Your task to perform on an android device: Empty the shopping cart on newegg. Image 0: 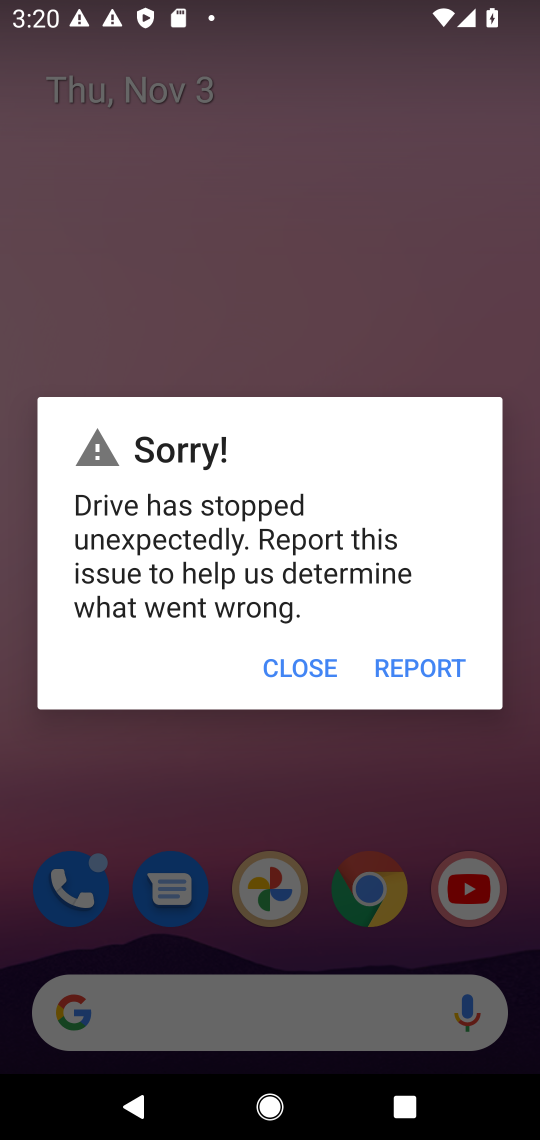
Step 0: click (277, 677)
Your task to perform on an android device: Empty the shopping cart on newegg. Image 1: 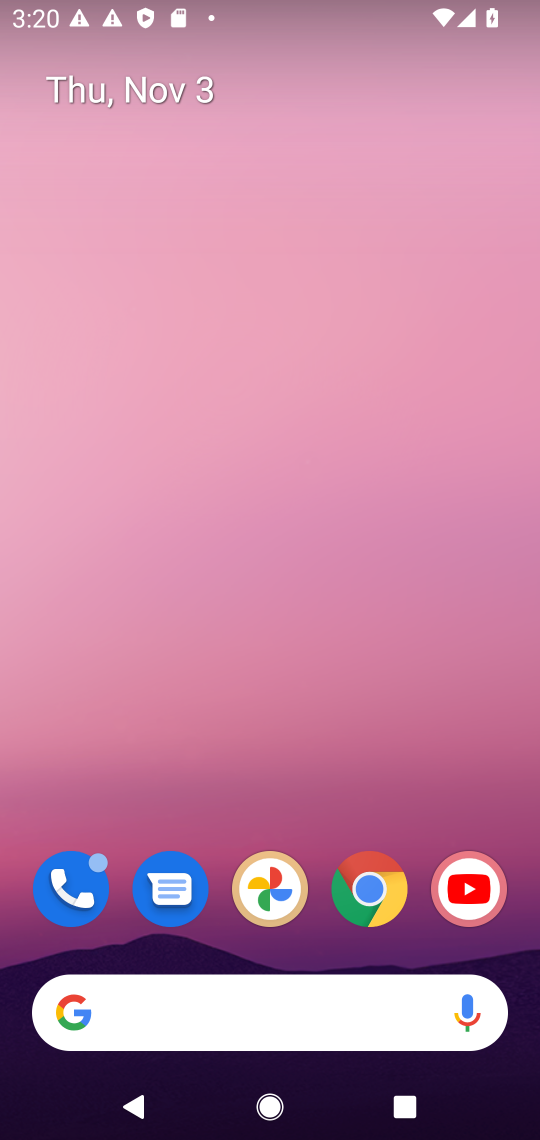
Step 1: click (363, 887)
Your task to perform on an android device: Empty the shopping cart on newegg. Image 2: 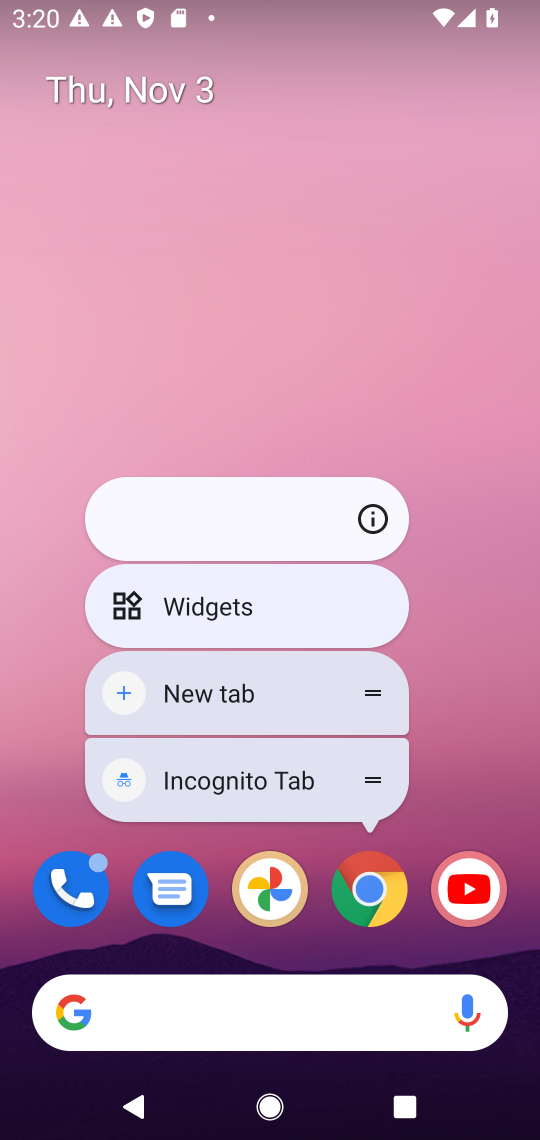
Step 2: click (370, 897)
Your task to perform on an android device: Empty the shopping cart on newegg. Image 3: 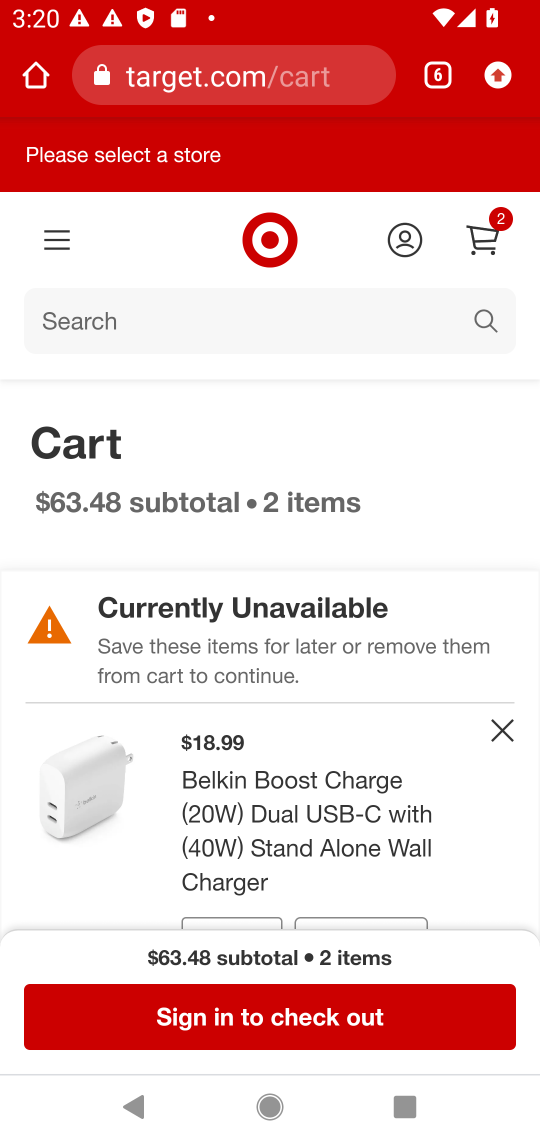
Step 3: click (436, 83)
Your task to perform on an android device: Empty the shopping cart on newegg. Image 4: 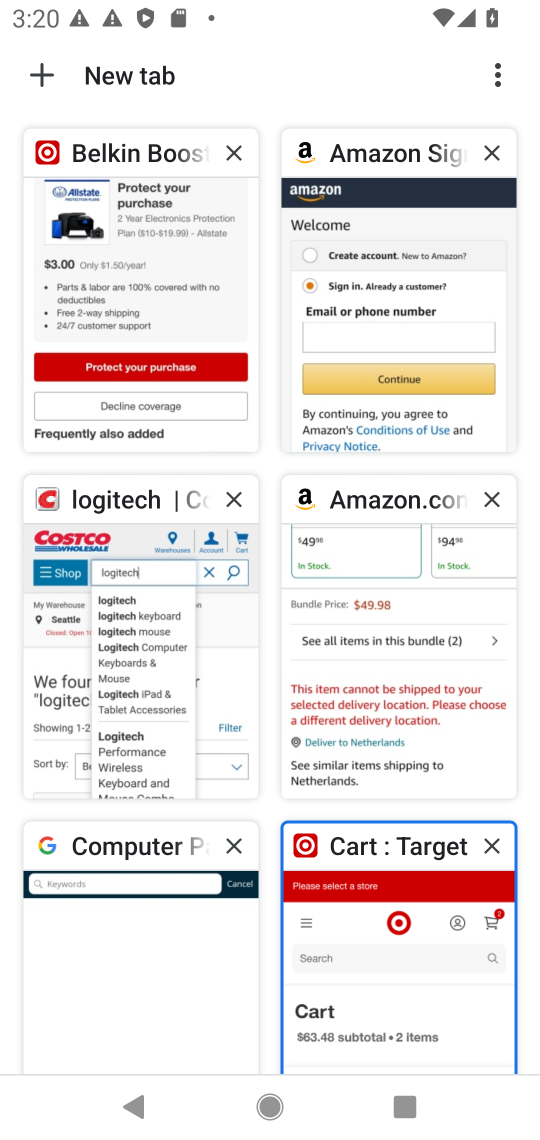
Step 4: click (33, 76)
Your task to perform on an android device: Empty the shopping cart on newegg. Image 5: 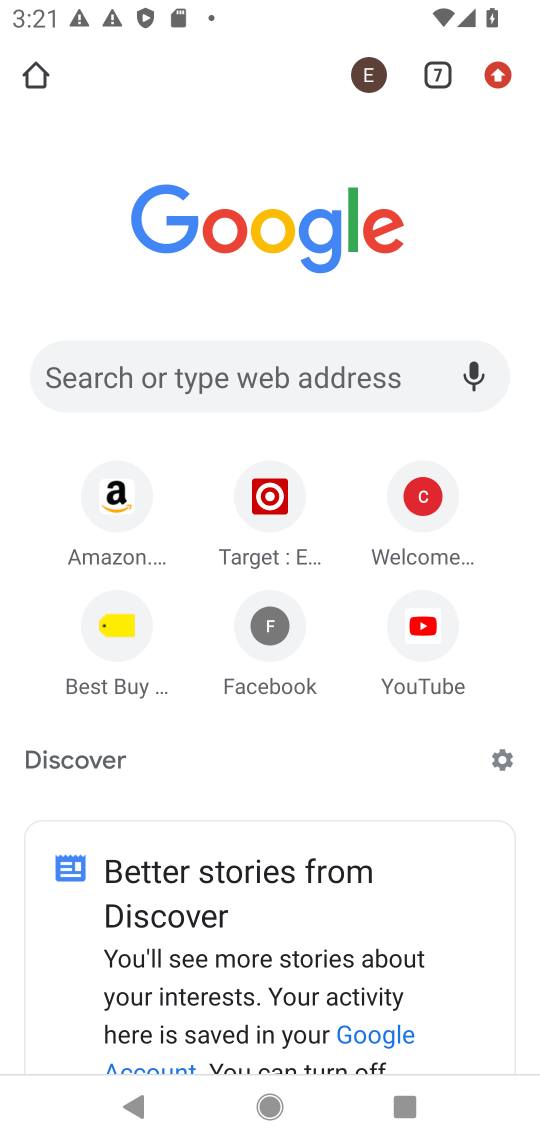
Step 5: click (215, 367)
Your task to perform on an android device: Empty the shopping cart on newegg. Image 6: 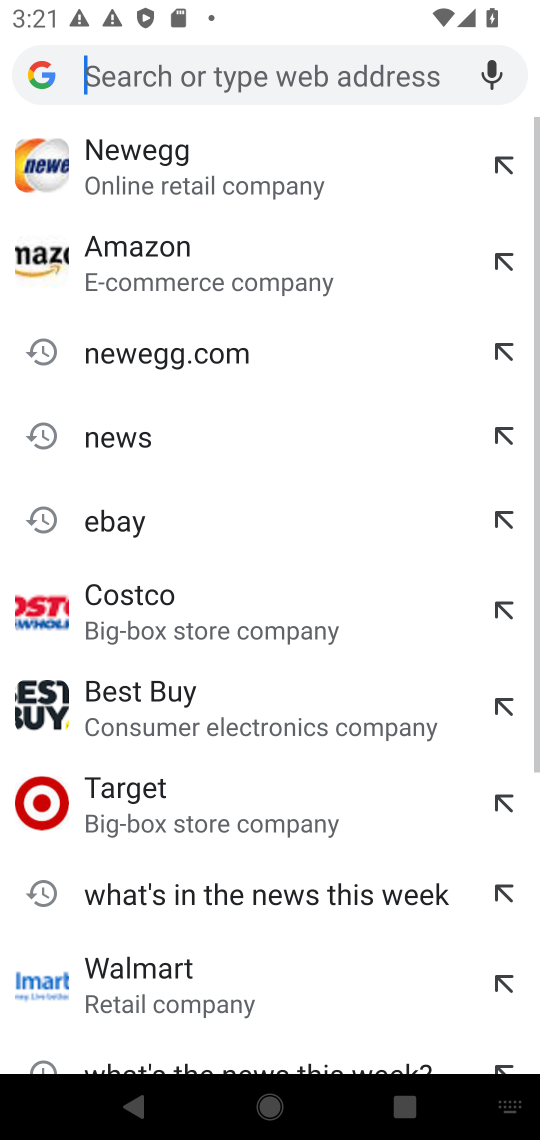
Step 6: click (226, 358)
Your task to perform on an android device: Empty the shopping cart on newegg. Image 7: 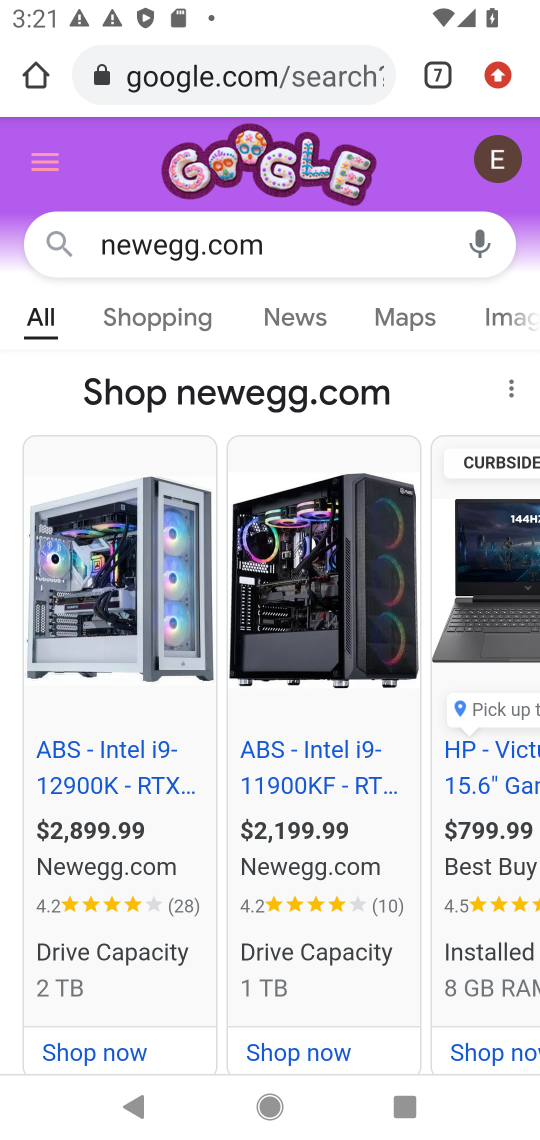
Step 7: drag from (244, 853) to (349, 527)
Your task to perform on an android device: Empty the shopping cart on newegg. Image 8: 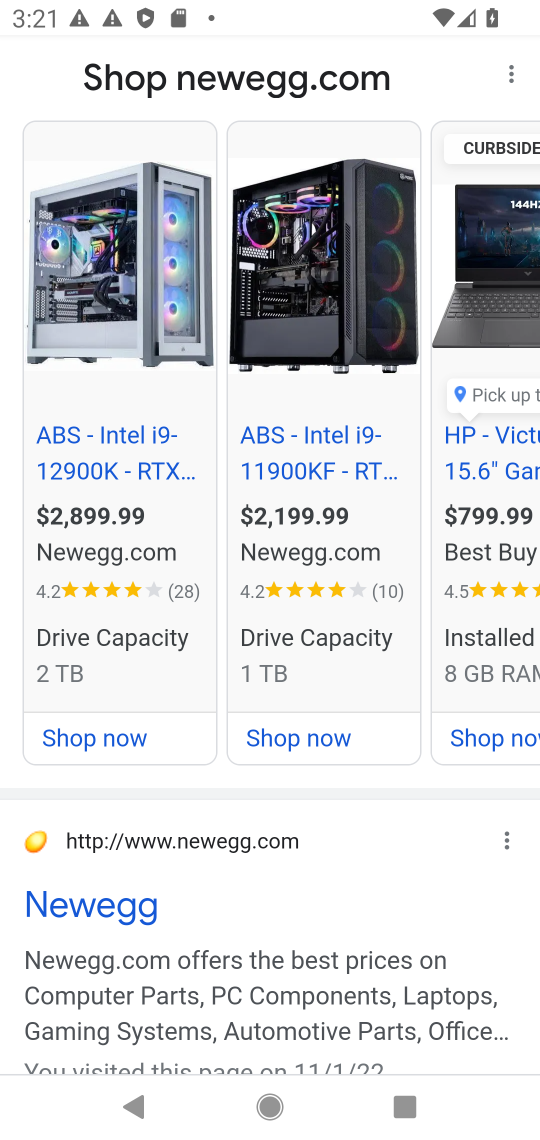
Step 8: click (125, 895)
Your task to perform on an android device: Empty the shopping cart on newegg. Image 9: 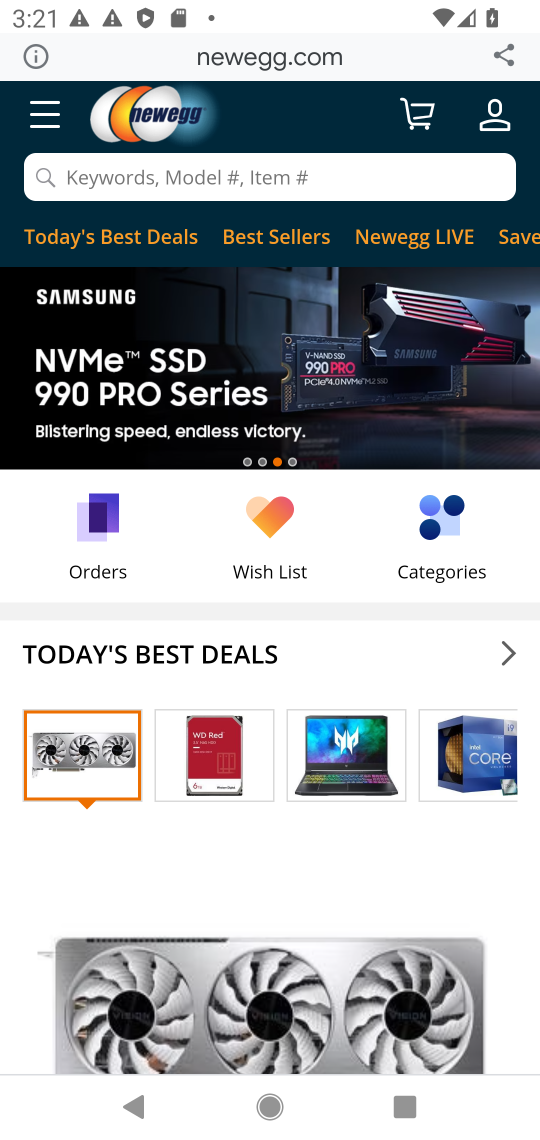
Step 9: drag from (372, 977) to (471, 250)
Your task to perform on an android device: Empty the shopping cart on newegg. Image 10: 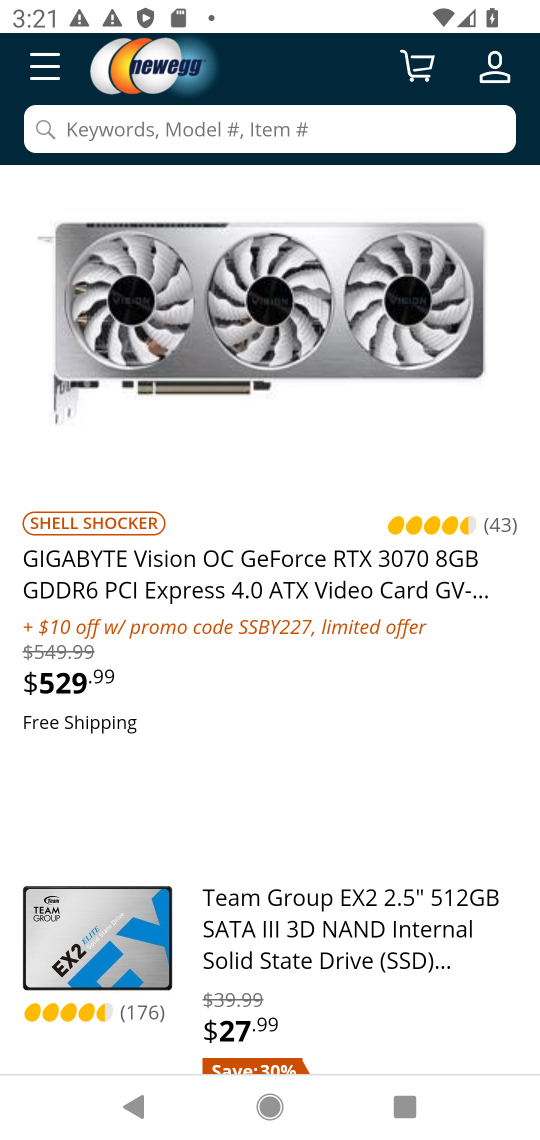
Step 10: drag from (394, 940) to (400, 1050)
Your task to perform on an android device: Empty the shopping cart on newegg. Image 11: 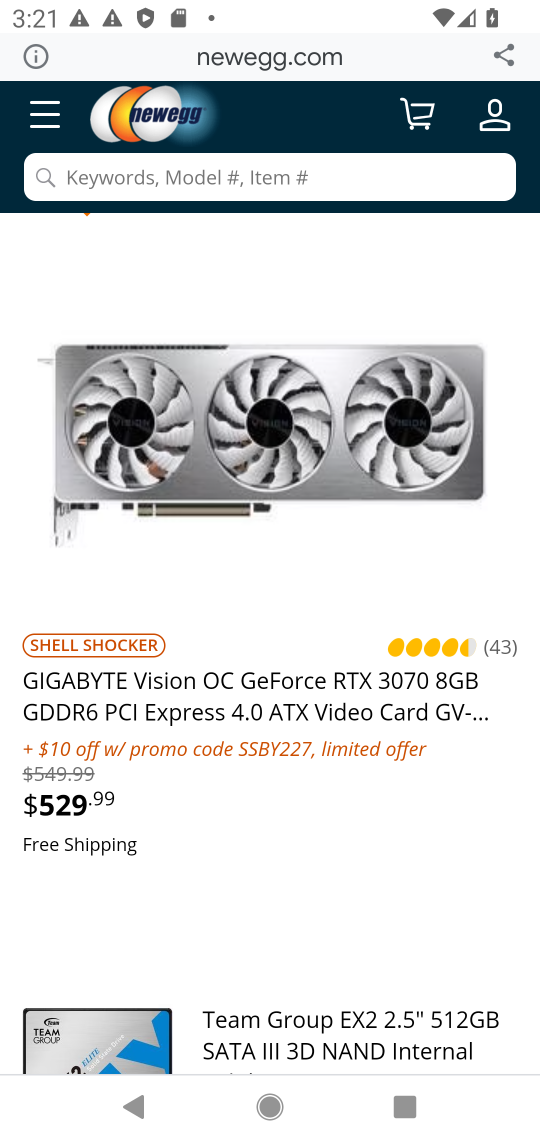
Step 11: click (425, 114)
Your task to perform on an android device: Empty the shopping cart on newegg. Image 12: 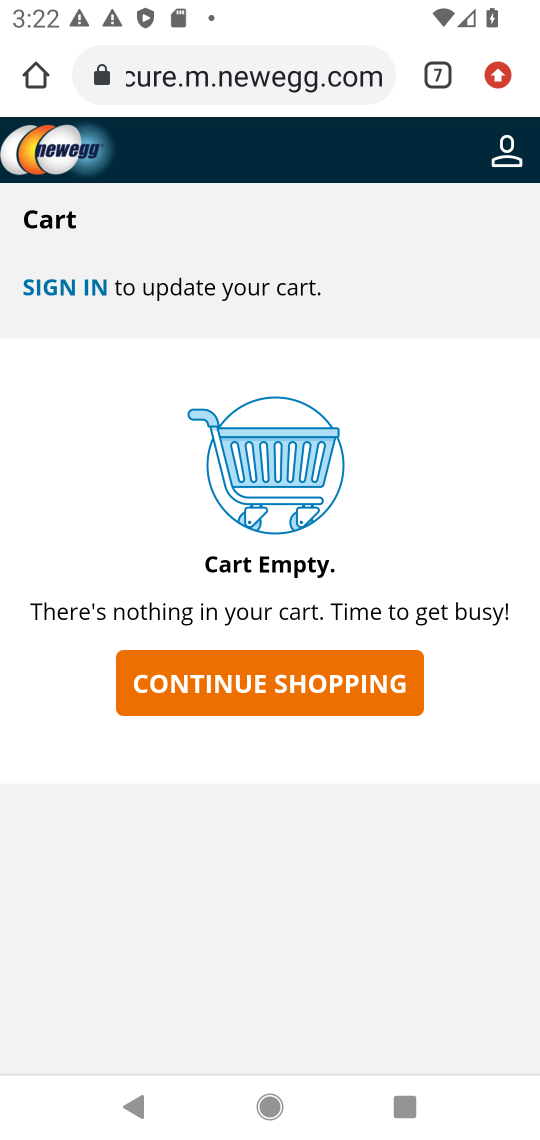
Step 12: task complete